Your task to perform on an android device: Open eBay Image 0: 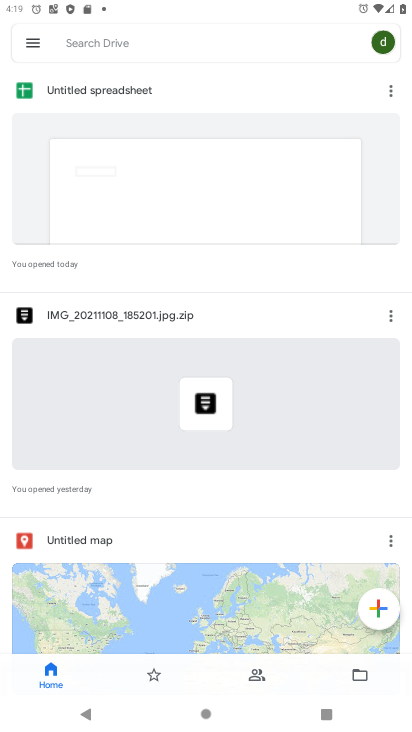
Step 0: press home button
Your task to perform on an android device: Open eBay Image 1: 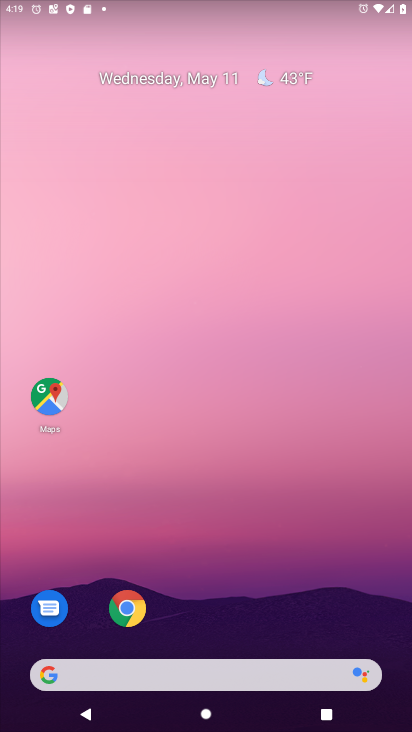
Step 1: click (124, 612)
Your task to perform on an android device: Open eBay Image 2: 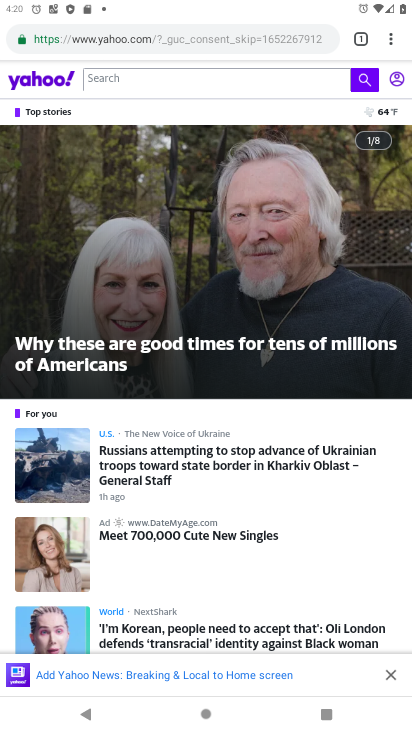
Step 2: click (392, 40)
Your task to perform on an android device: Open eBay Image 3: 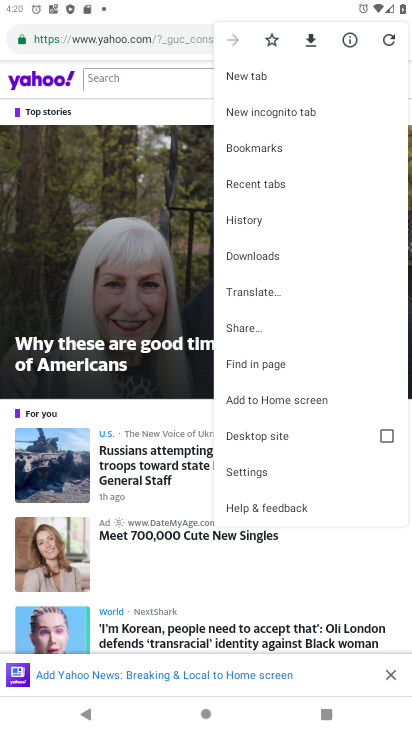
Step 3: click (244, 75)
Your task to perform on an android device: Open eBay Image 4: 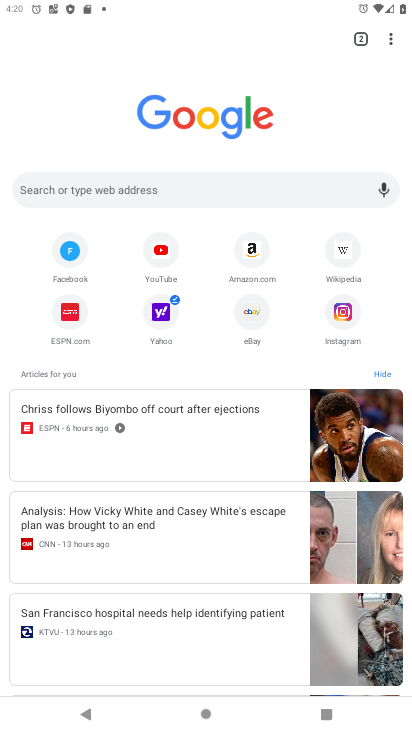
Step 4: click (251, 305)
Your task to perform on an android device: Open eBay Image 5: 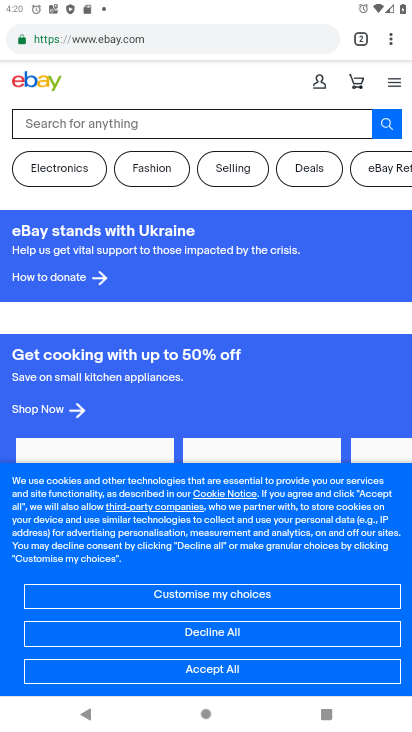
Step 5: task complete